Your task to perform on an android device: open wifi settings Image 0: 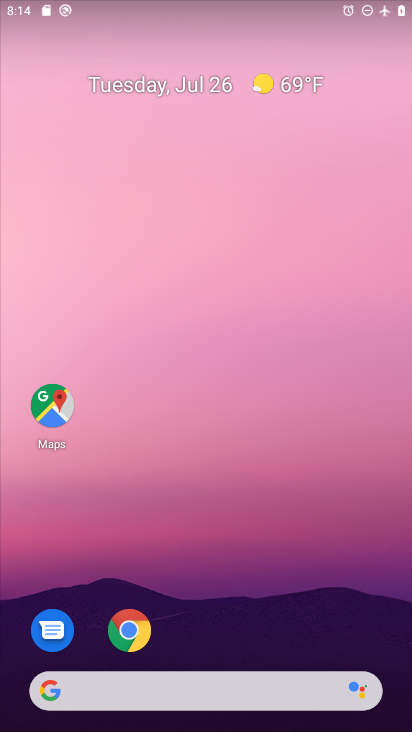
Step 0: drag from (191, 612) to (194, 151)
Your task to perform on an android device: open wifi settings Image 1: 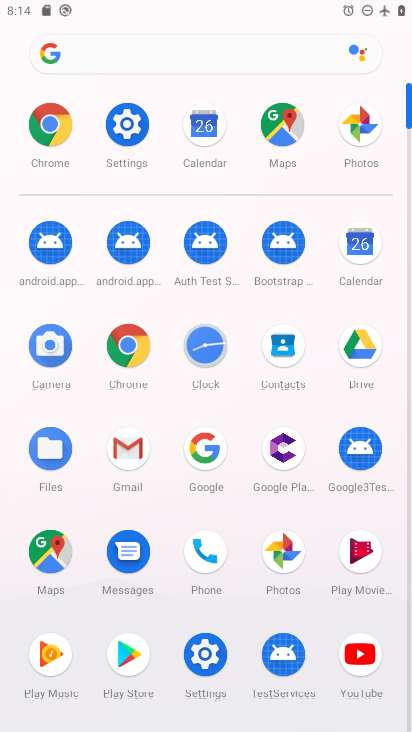
Step 1: click (218, 670)
Your task to perform on an android device: open wifi settings Image 2: 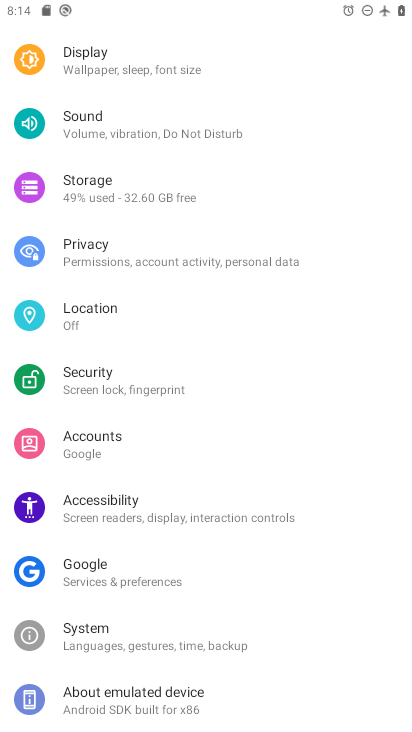
Step 2: drag from (156, 100) to (221, 580)
Your task to perform on an android device: open wifi settings Image 3: 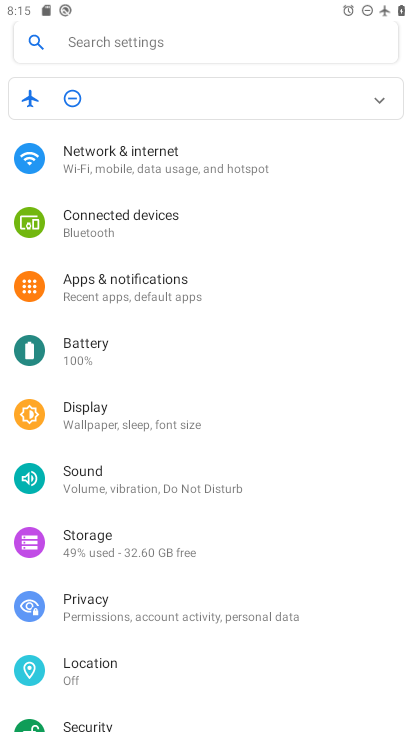
Step 3: click (151, 180)
Your task to perform on an android device: open wifi settings Image 4: 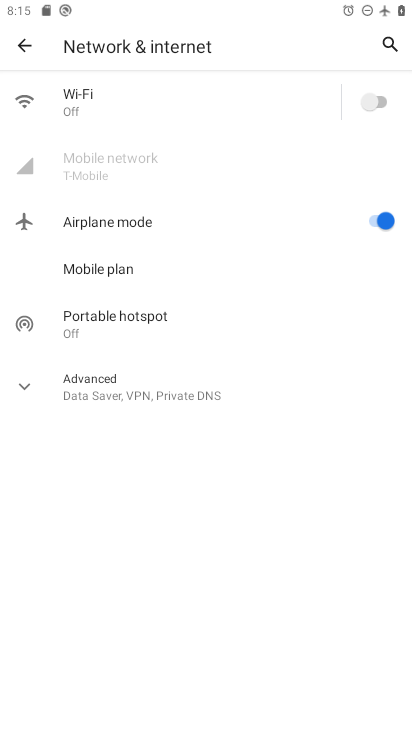
Step 4: click (171, 116)
Your task to perform on an android device: open wifi settings Image 5: 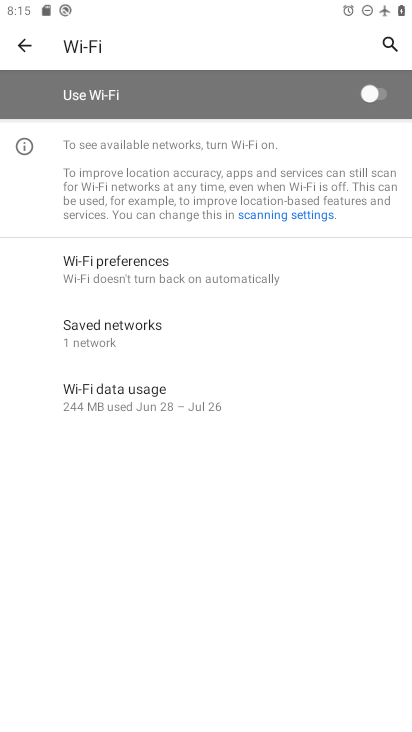
Step 5: task complete